Your task to perform on an android device: Open Youtube and go to the subscriptions tab Image 0: 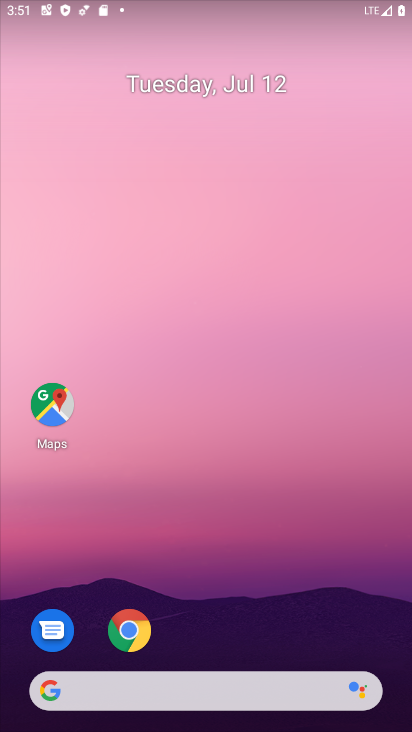
Step 0: drag from (252, 701) to (181, 9)
Your task to perform on an android device: Open Youtube and go to the subscriptions tab Image 1: 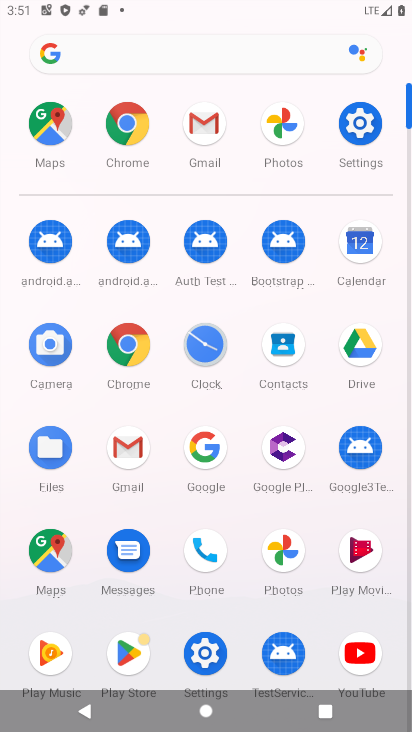
Step 1: click (359, 654)
Your task to perform on an android device: Open Youtube and go to the subscriptions tab Image 2: 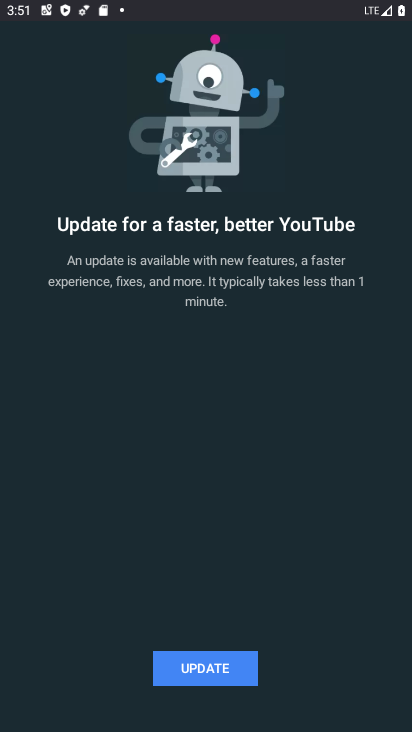
Step 2: click (219, 661)
Your task to perform on an android device: Open Youtube and go to the subscriptions tab Image 3: 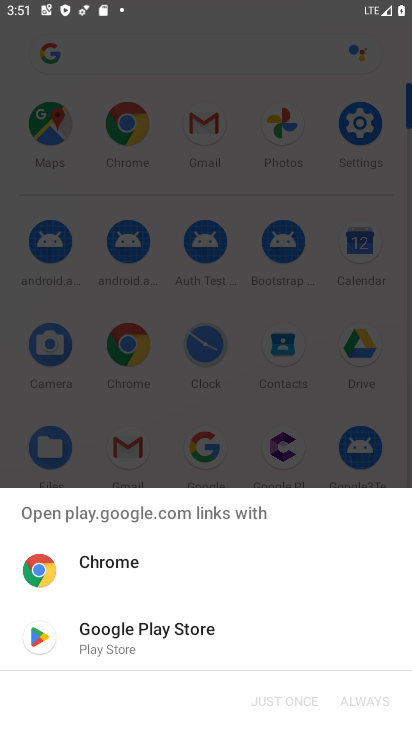
Step 3: click (153, 640)
Your task to perform on an android device: Open Youtube and go to the subscriptions tab Image 4: 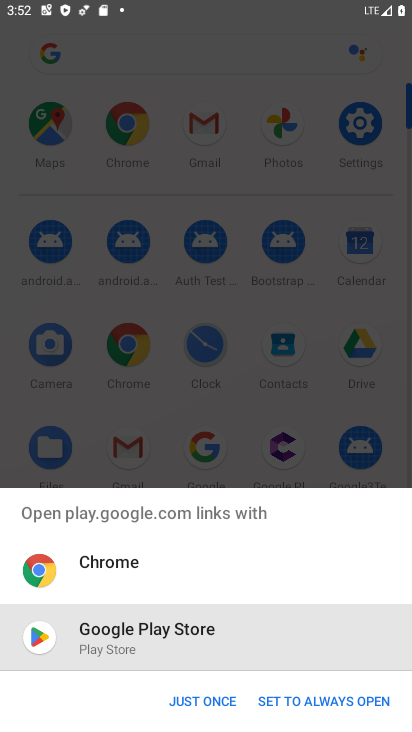
Step 4: click (220, 697)
Your task to perform on an android device: Open Youtube and go to the subscriptions tab Image 5: 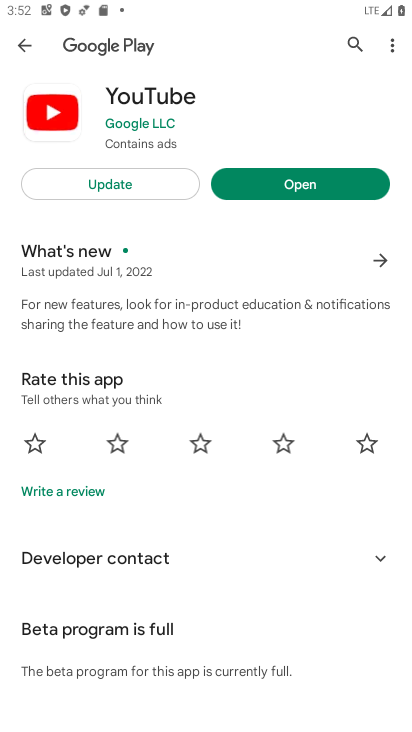
Step 5: click (91, 181)
Your task to perform on an android device: Open Youtube and go to the subscriptions tab Image 6: 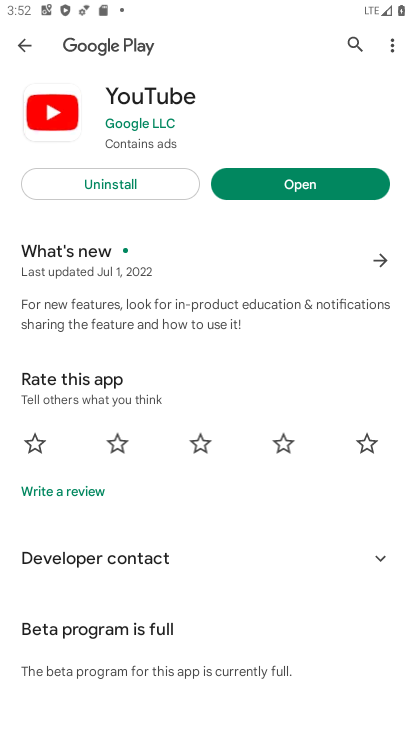
Step 6: click (322, 186)
Your task to perform on an android device: Open Youtube and go to the subscriptions tab Image 7: 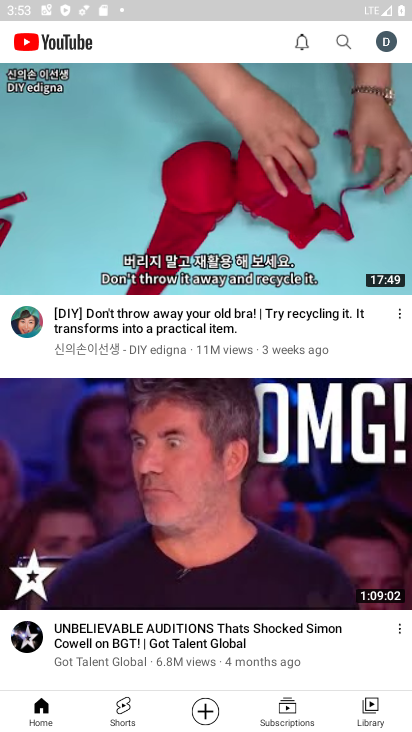
Step 7: click (296, 704)
Your task to perform on an android device: Open Youtube and go to the subscriptions tab Image 8: 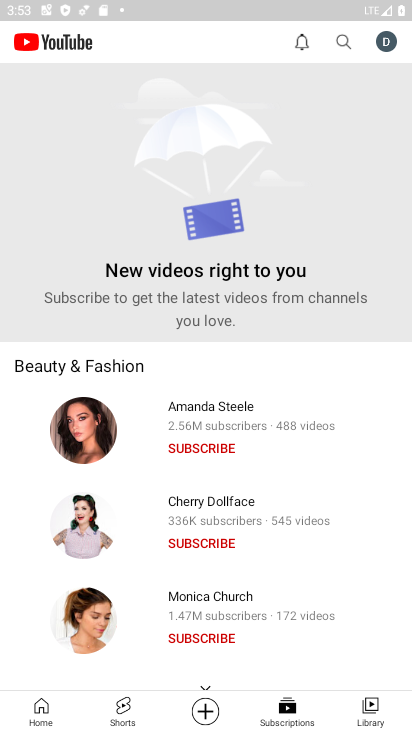
Step 8: task complete